Your task to perform on an android device: View the shopping cart on amazon. Search for "alienware aurora" on amazon, select the first entry, and add it to the cart. Image 0: 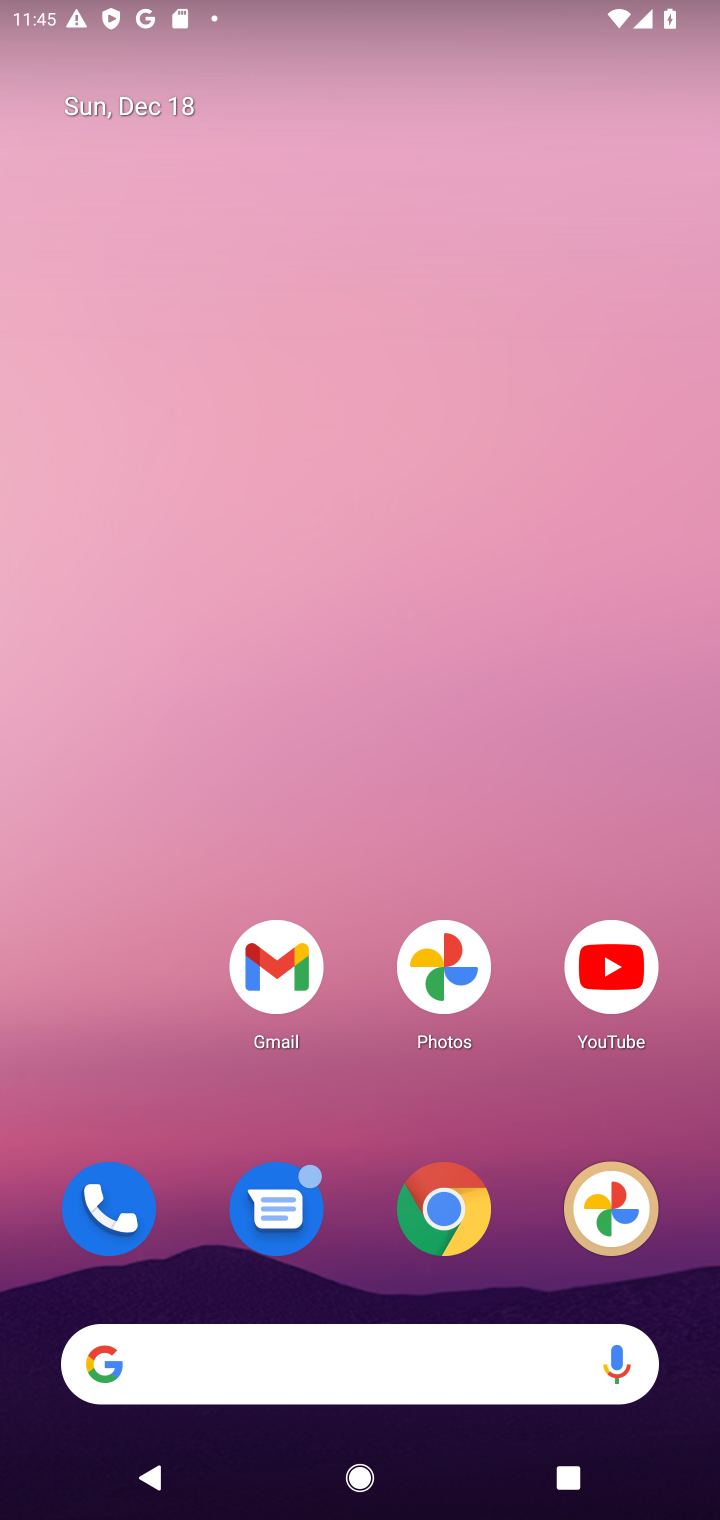
Step 0: task complete